Your task to perform on an android device: install app "Roku - Official Remote Control" Image 0: 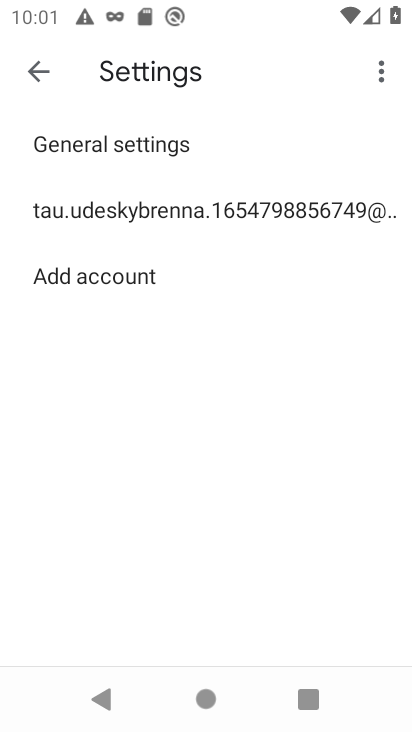
Step 0: press home button
Your task to perform on an android device: install app "Roku - Official Remote Control" Image 1: 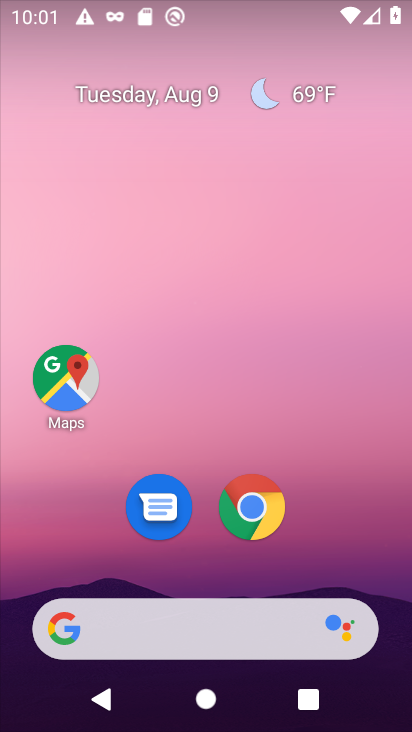
Step 1: drag from (167, 613) to (193, 62)
Your task to perform on an android device: install app "Roku - Official Remote Control" Image 2: 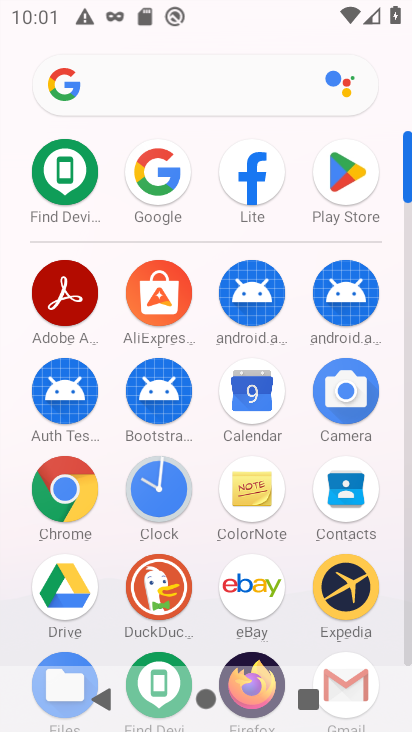
Step 2: click (347, 172)
Your task to perform on an android device: install app "Roku - Official Remote Control" Image 3: 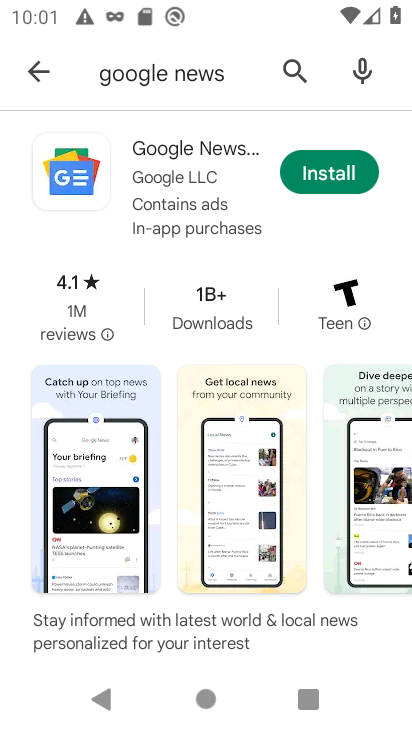
Step 3: click (285, 71)
Your task to perform on an android device: install app "Roku - Official Remote Control" Image 4: 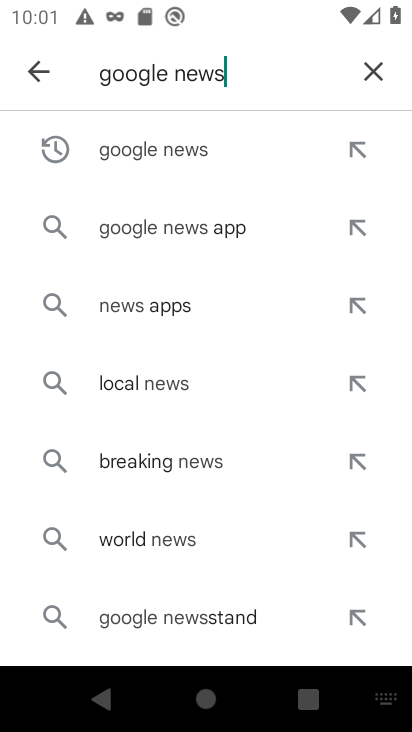
Step 4: click (372, 74)
Your task to perform on an android device: install app "Roku - Official Remote Control" Image 5: 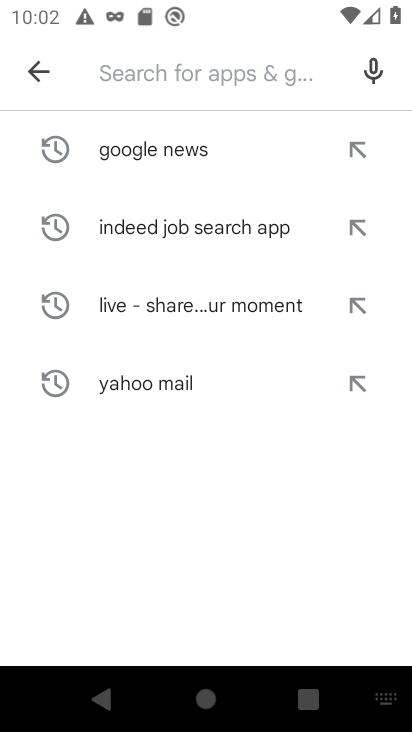
Step 5: type "Roku - Official Remote Control"
Your task to perform on an android device: install app "Roku - Official Remote Control" Image 6: 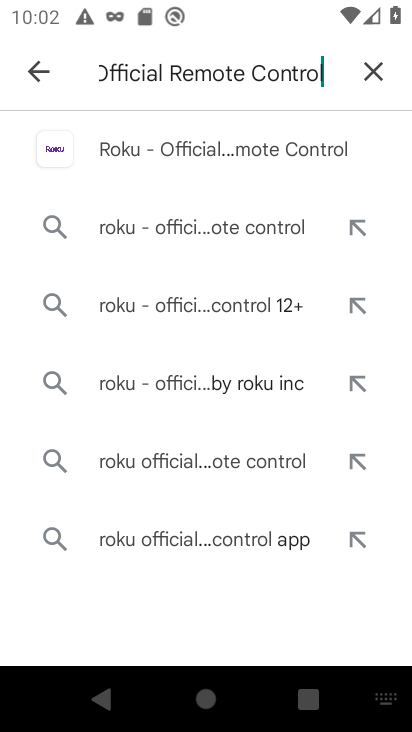
Step 6: click (232, 142)
Your task to perform on an android device: install app "Roku - Official Remote Control" Image 7: 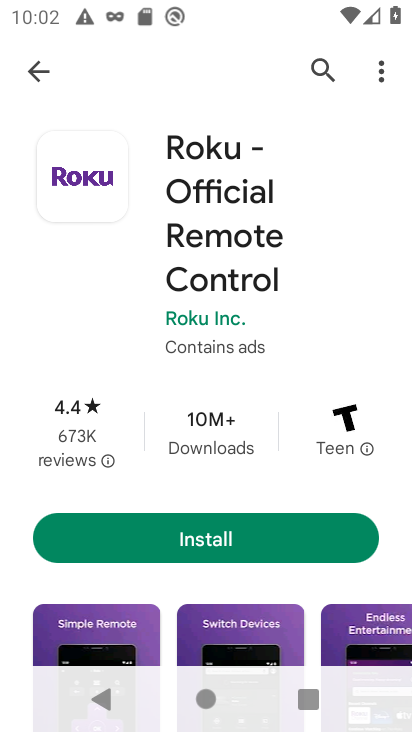
Step 7: click (197, 545)
Your task to perform on an android device: install app "Roku - Official Remote Control" Image 8: 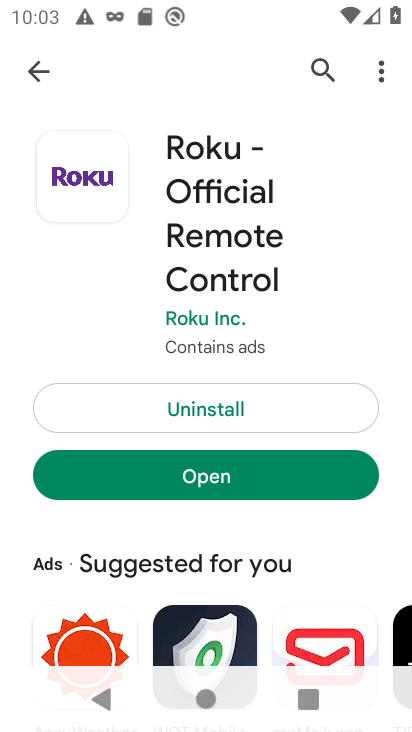
Step 8: task complete